Your task to perform on an android device: turn off location Image 0: 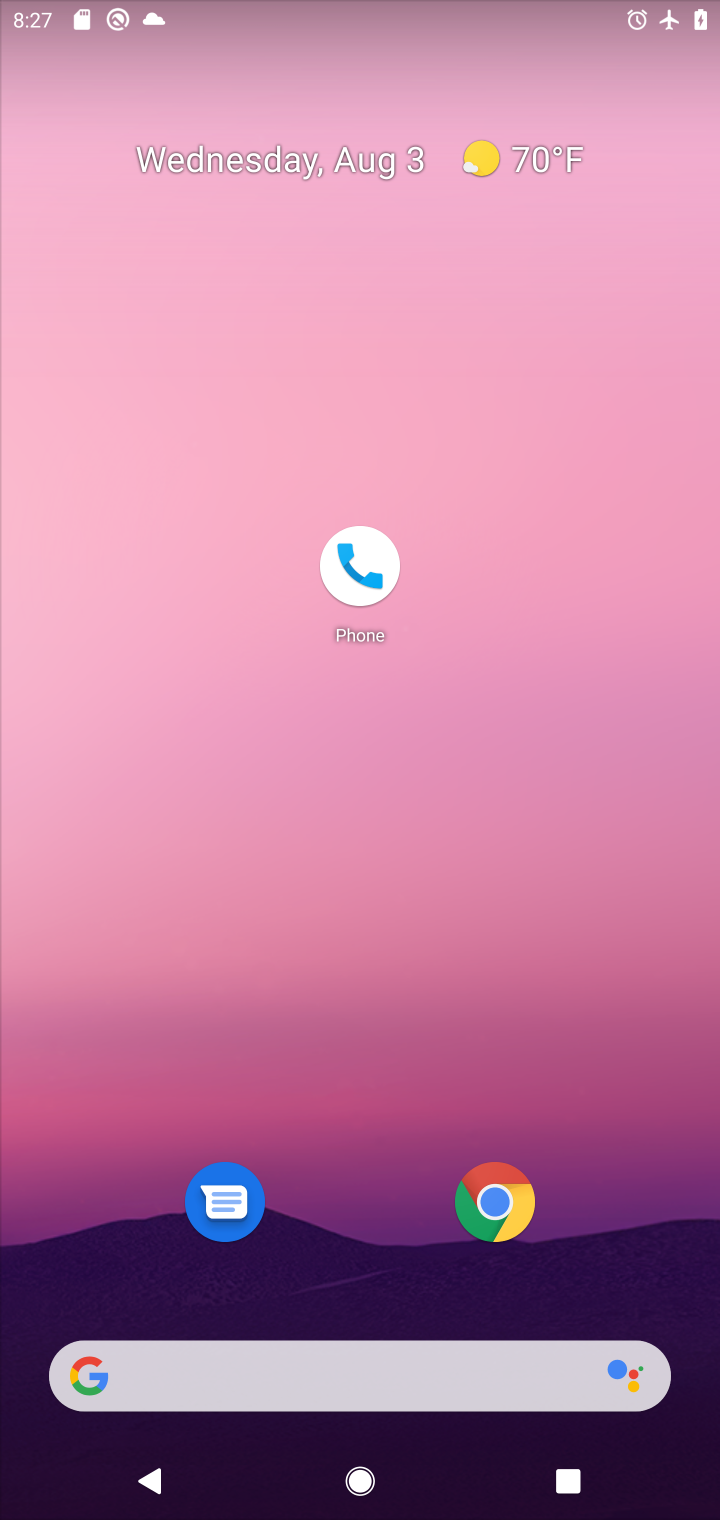
Step 0: drag from (263, 1351) to (249, 280)
Your task to perform on an android device: turn off location Image 1: 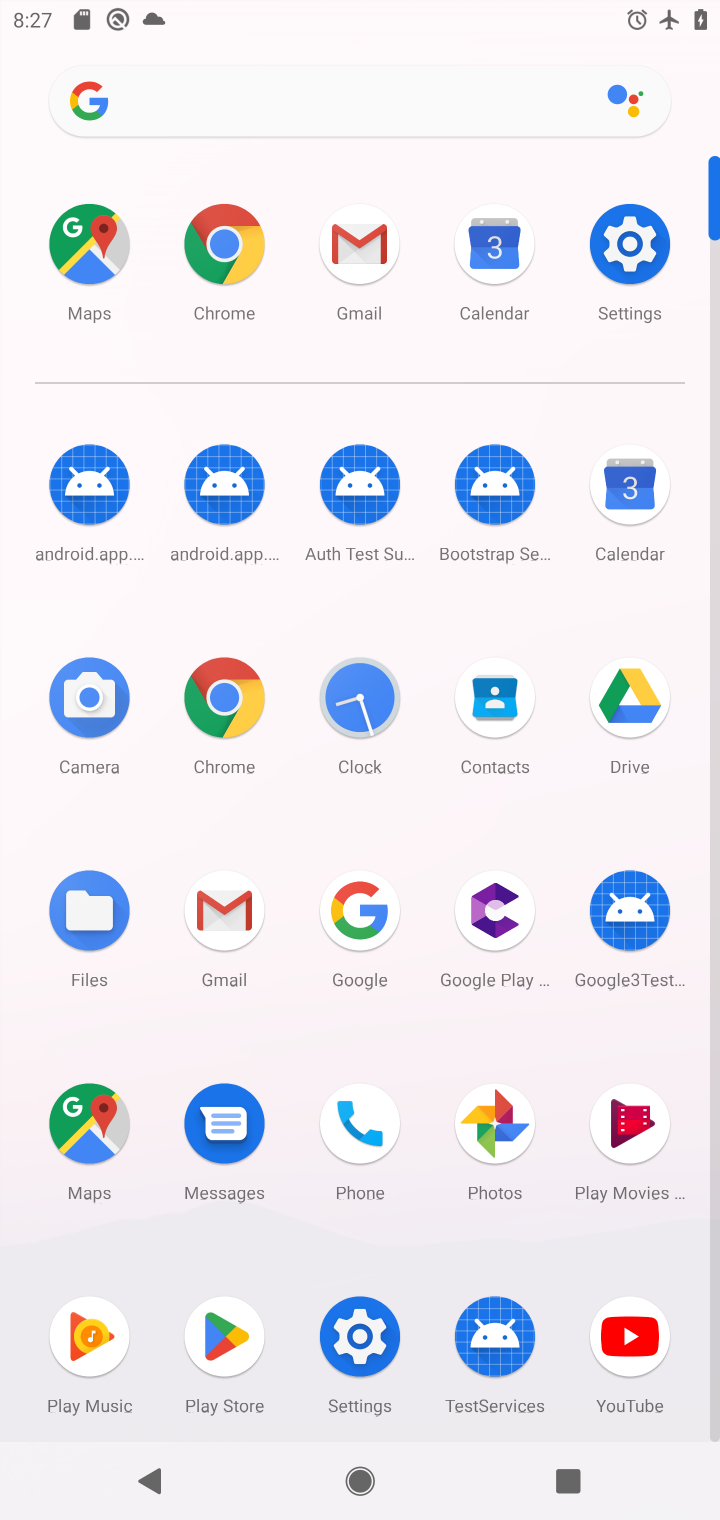
Step 1: click (627, 245)
Your task to perform on an android device: turn off location Image 2: 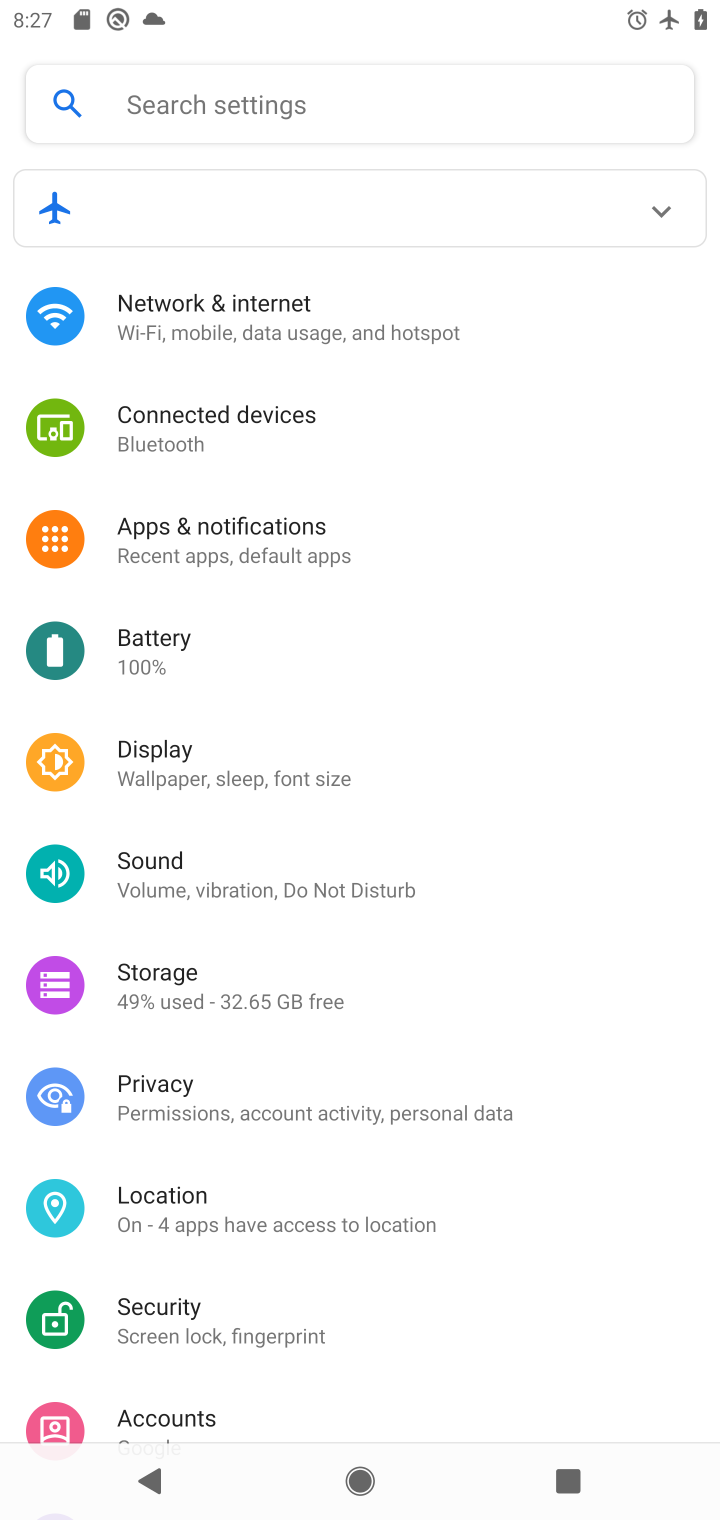
Step 2: click (213, 1207)
Your task to perform on an android device: turn off location Image 3: 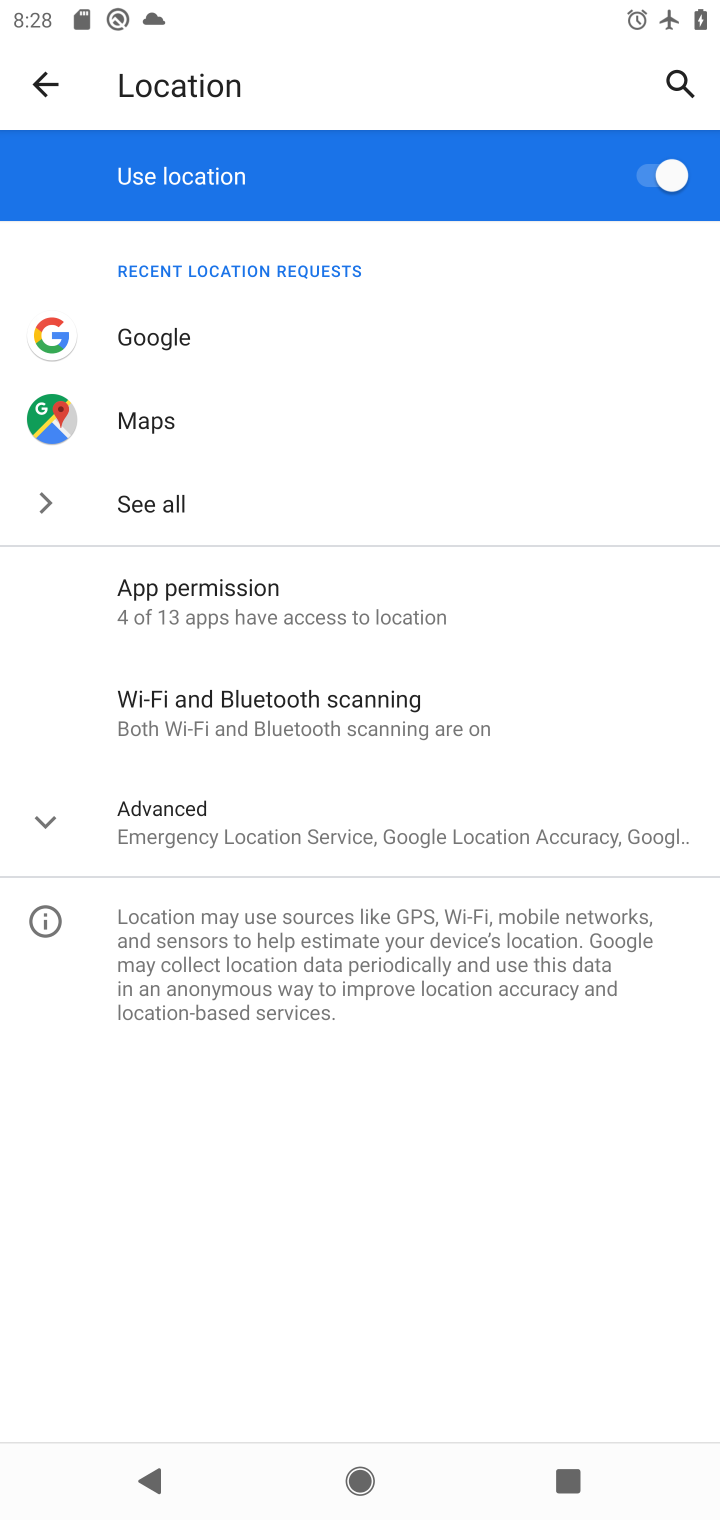
Step 3: click (646, 183)
Your task to perform on an android device: turn off location Image 4: 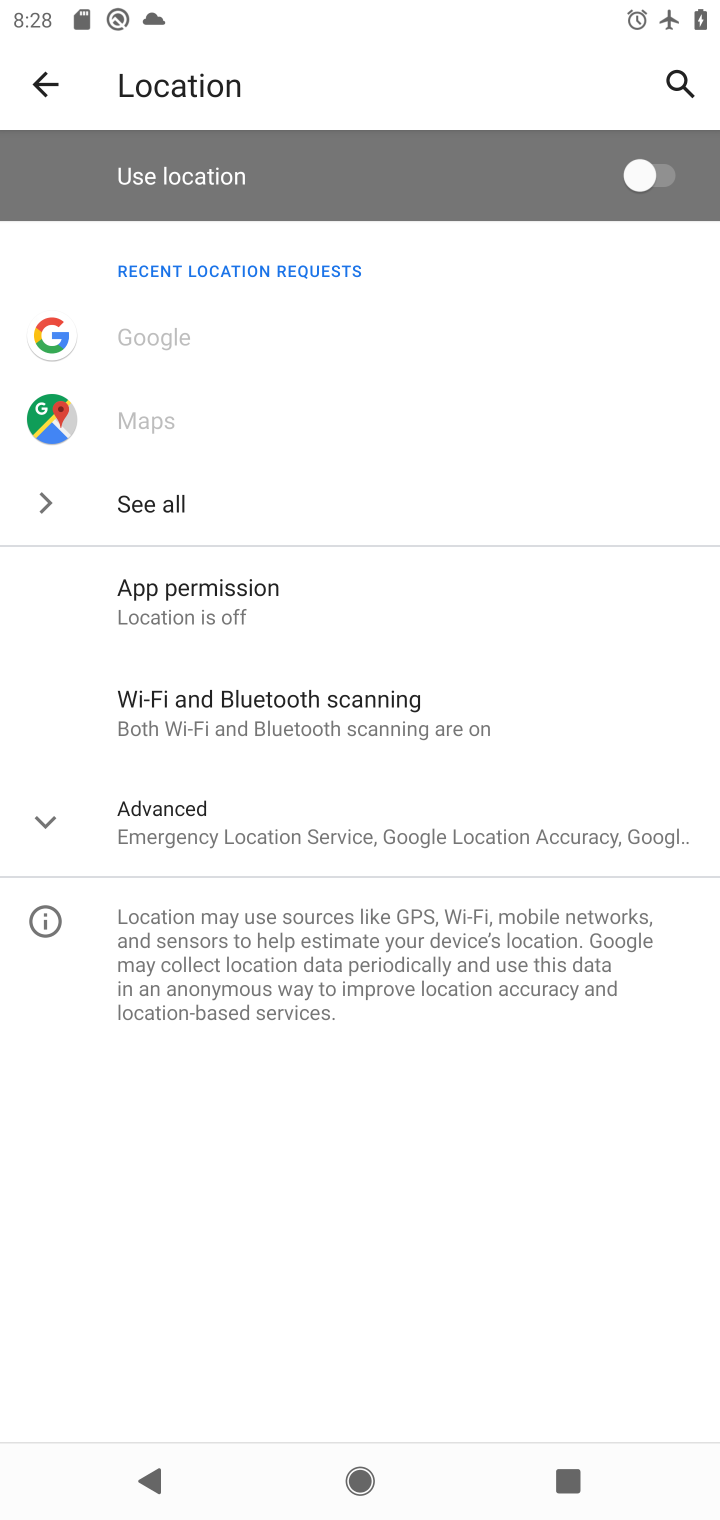
Step 4: task complete